Your task to perform on an android device: Go to Amazon Image 0: 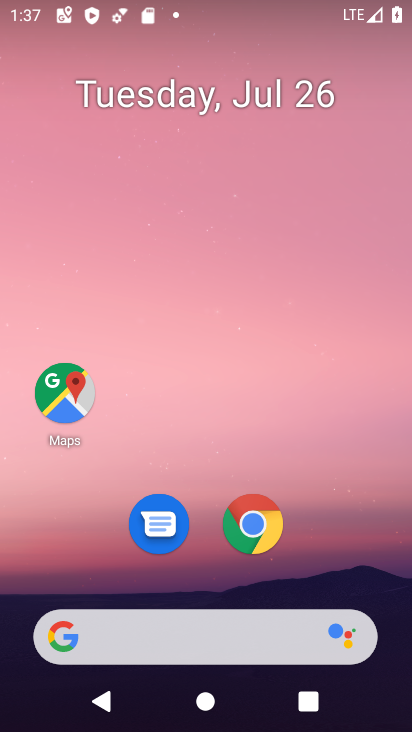
Step 0: click (261, 521)
Your task to perform on an android device: Go to Amazon Image 1: 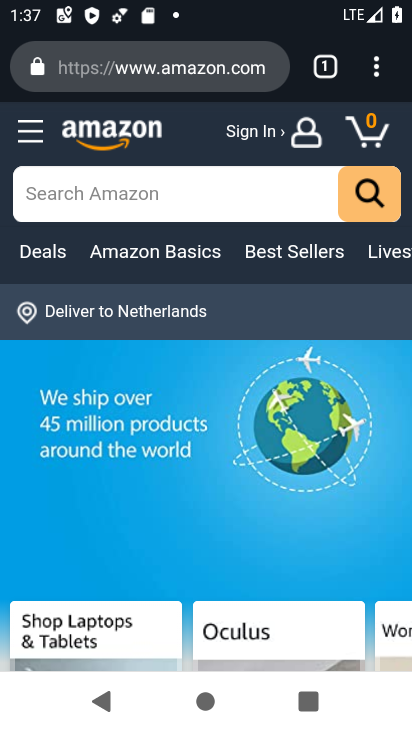
Step 1: task complete